Your task to perform on an android device: clear history in the chrome app Image 0: 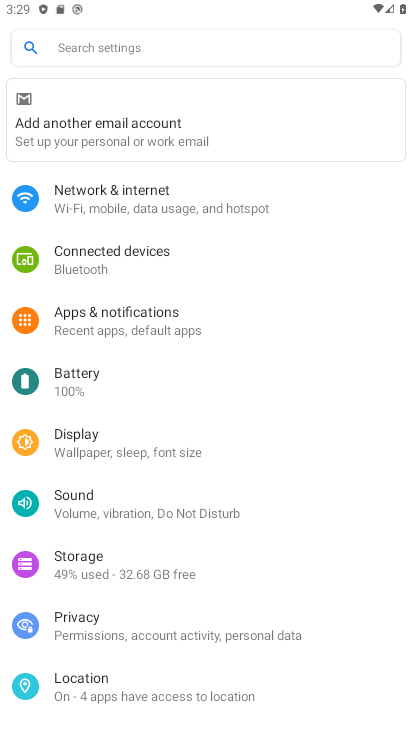
Step 0: press home button
Your task to perform on an android device: clear history in the chrome app Image 1: 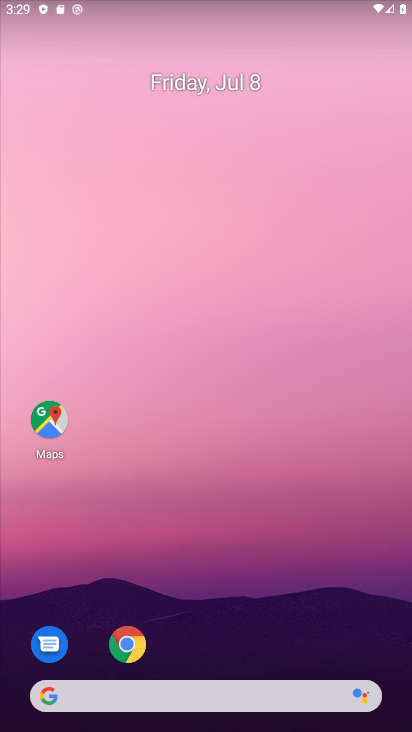
Step 1: drag from (266, 619) to (245, 198)
Your task to perform on an android device: clear history in the chrome app Image 2: 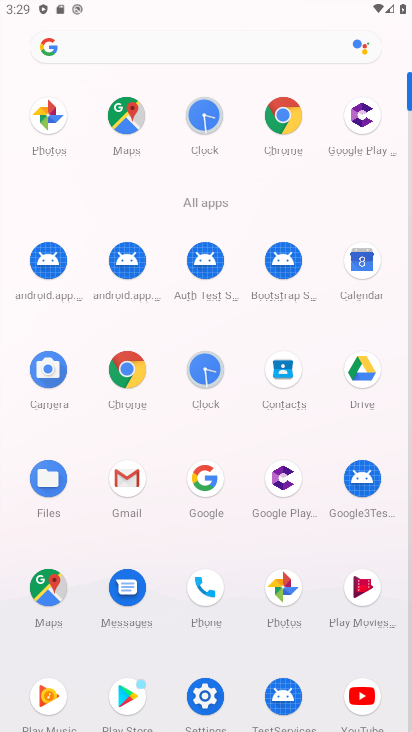
Step 2: click (279, 124)
Your task to perform on an android device: clear history in the chrome app Image 3: 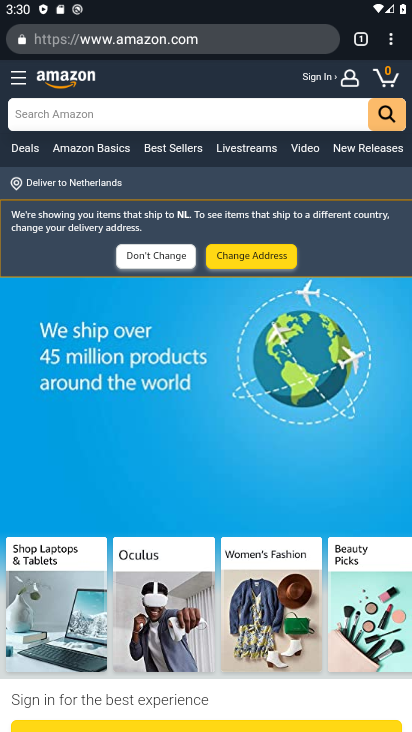
Step 3: click (392, 40)
Your task to perform on an android device: clear history in the chrome app Image 4: 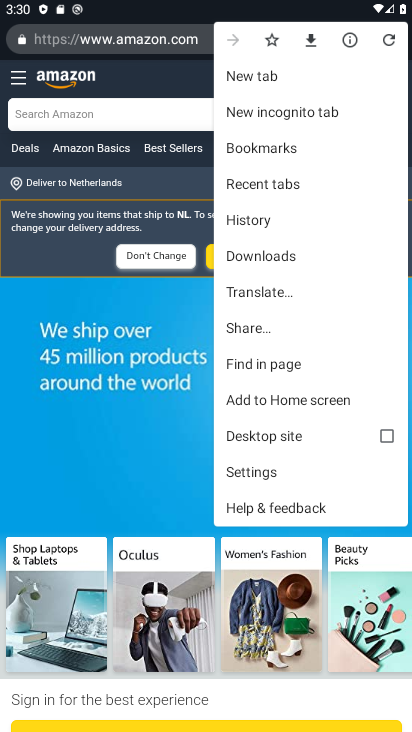
Step 4: click (256, 217)
Your task to perform on an android device: clear history in the chrome app Image 5: 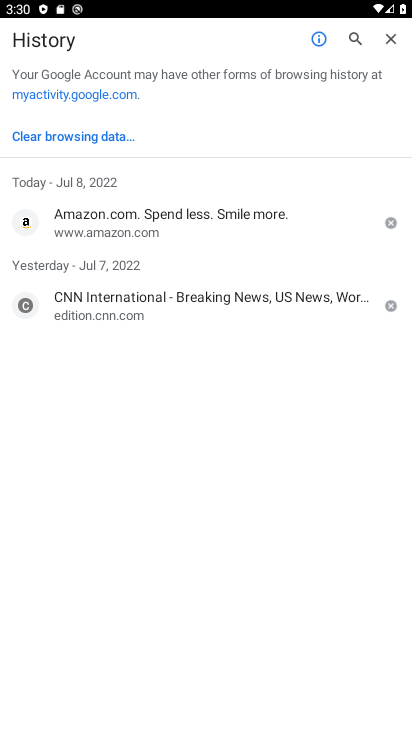
Step 5: click (95, 136)
Your task to perform on an android device: clear history in the chrome app Image 6: 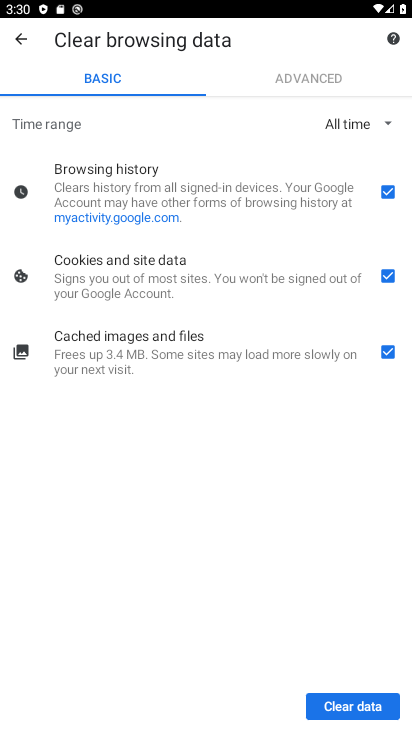
Step 6: click (376, 707)
Your task to perform on an android device: clear history in the chrome app Image 7: 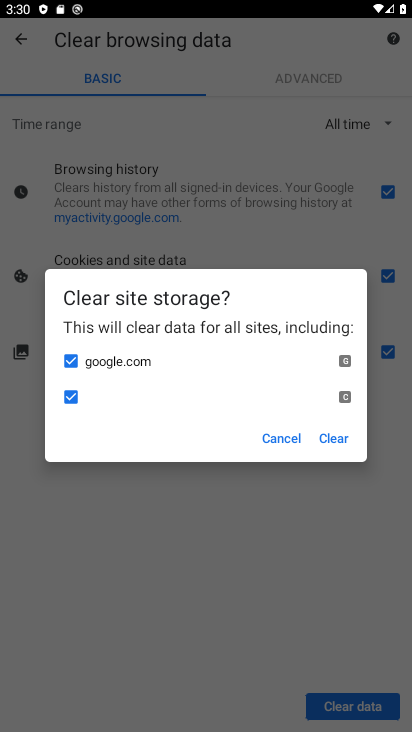
Step 7: click (320, 435)
Your task to perform on an android device: clear history in the chrome app Image 8: 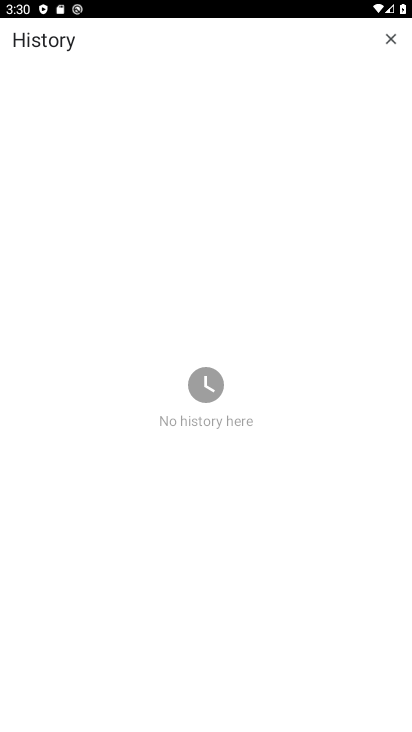
Step 8: task complete